Your task to perform on an android device: find which apps use the phone's location Image 0: 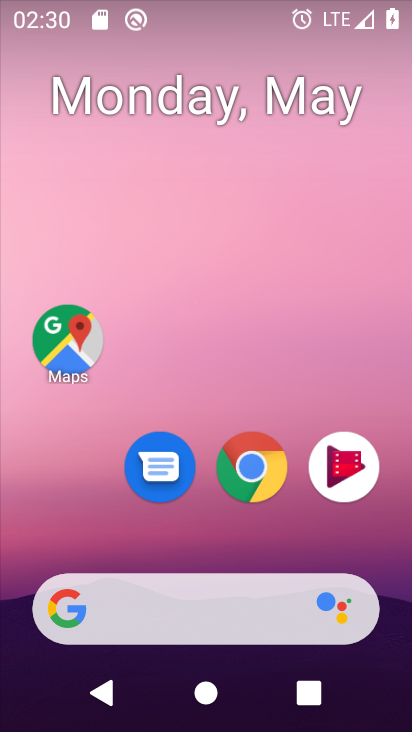
Step 0: drag from (182, 506) to (226, 168)
Your task to perform on an android device: find which apps use the phone's location Image 1: 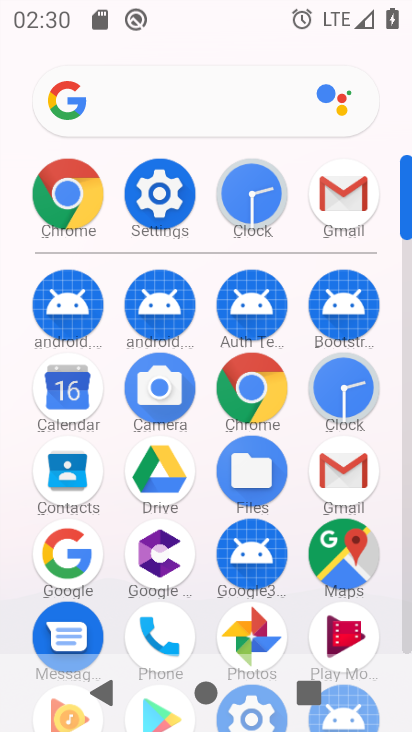
Step 1: click (143, 179)
Your task to perform on an android device: find which apps use the phone's location Image 2: 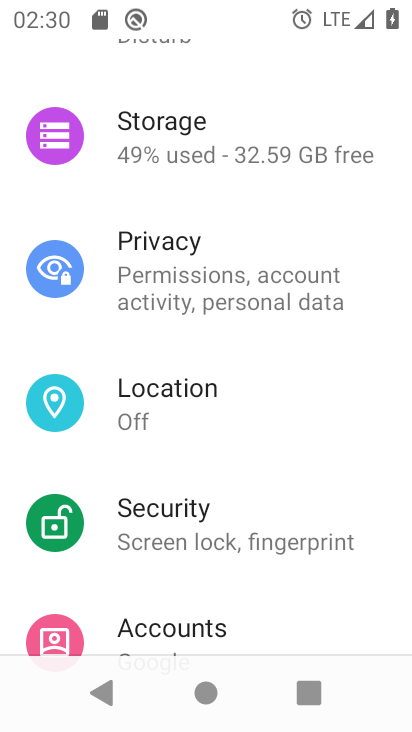
Step 2: click (182, 406)
Your task to perform on an android device: find which apps use the phone's location Image 3: 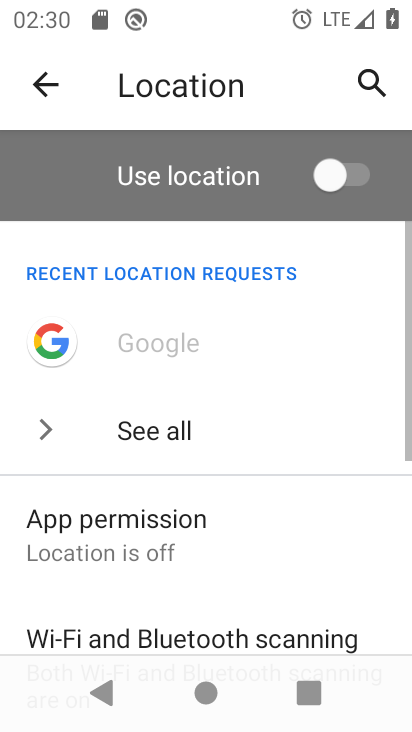
Step 3: task complete